Your task to perform on an android device: Go to Amazon Image 0: 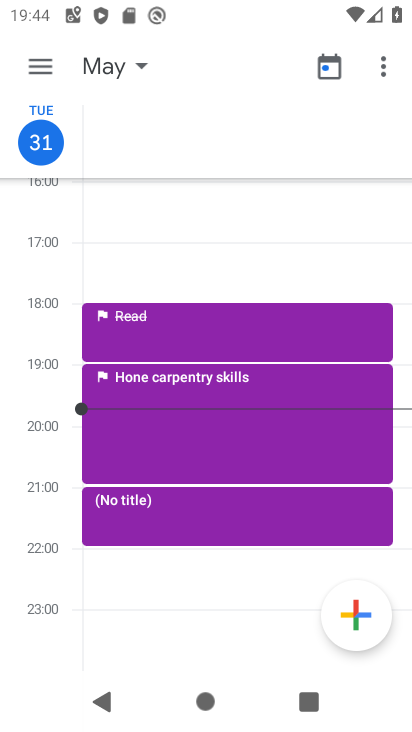
Step 0: press home button
Your task to perform on an android device: Go to Amazon Image 1: 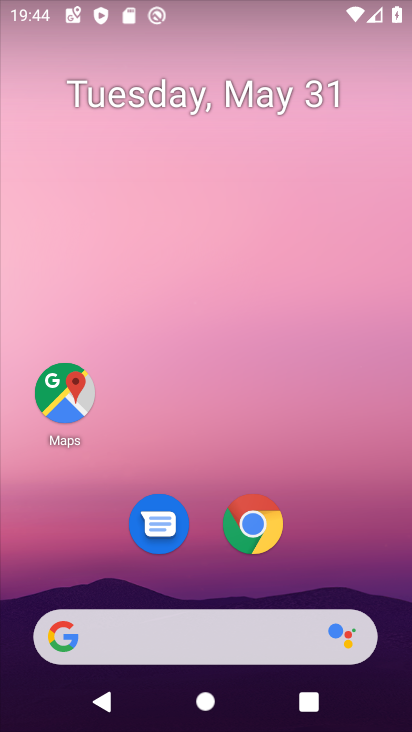
Step 1: click (251, 511)
Your task to perform on an android device: Go to Amazon Image 2: 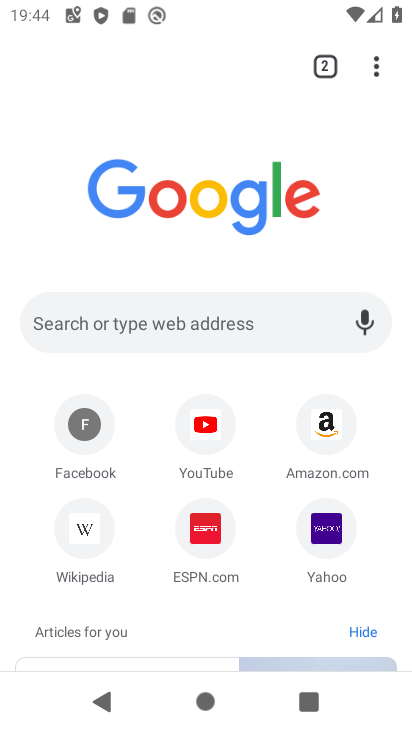
Step 2: click (329, 419)
Your task to perform on an android device: Go to Amazon Image 3: 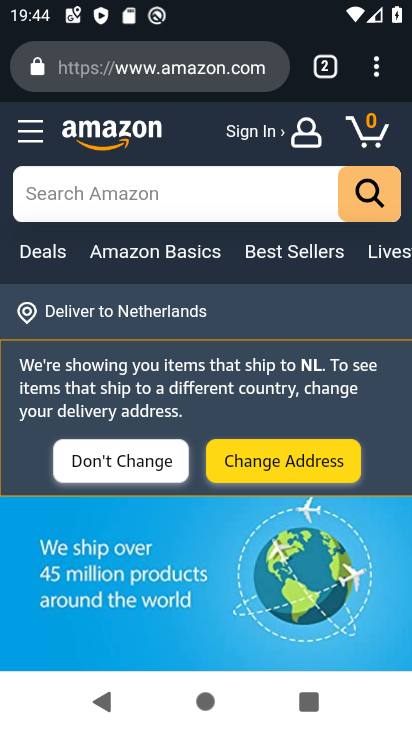
Step 3: task complete